Your task to perform on an android device: set the timer Image 0: 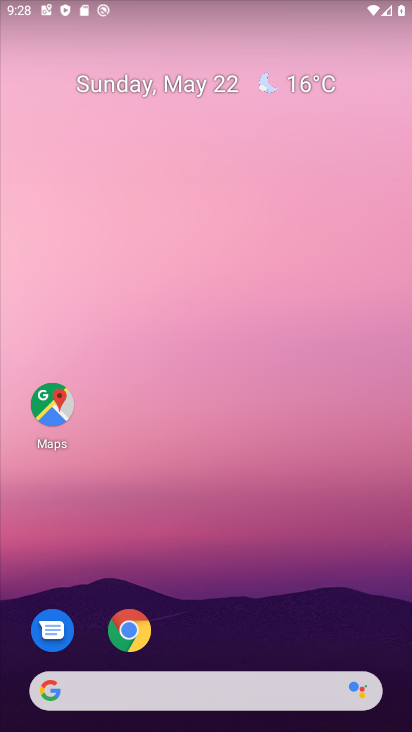
Step 0: drag from (388, 655) to (355, 38)
Your task to perform on an android device: set the timer Image 1: 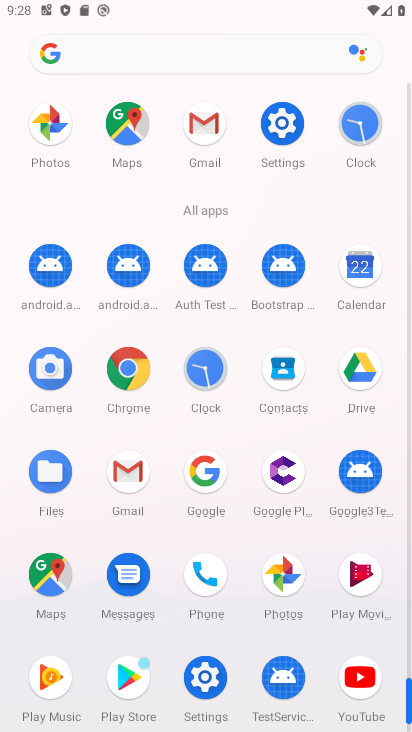
Step 1: click (203, 364)
Your task to perform on an android device: set the timer Image 2: 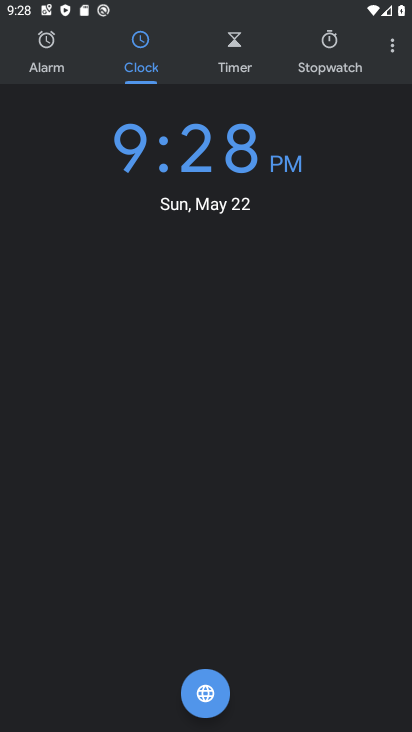
Step 2: click (237, 43)
Your task to perform on an android device: set the timer Image 3: 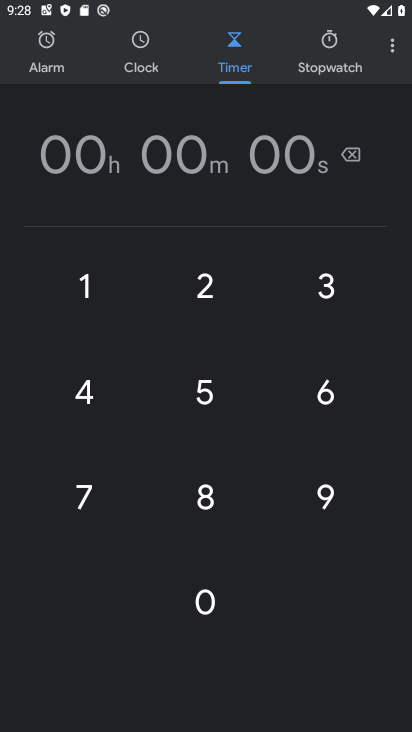
Step 3: click (83, 284)
Your task to perform on an android device: set the timer Image 4: 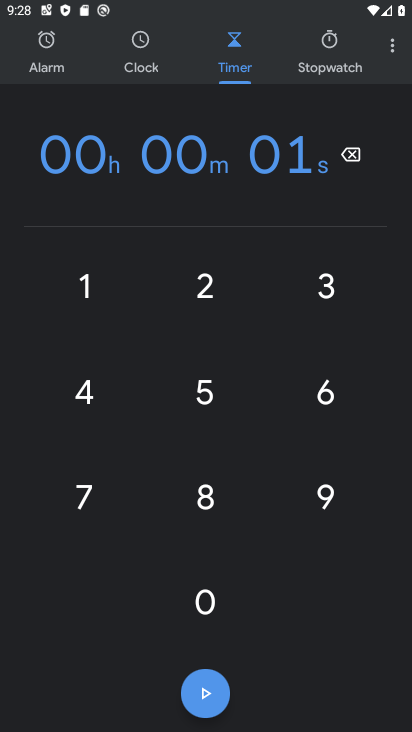
Step 4: click (330, 282)
Your task to perform on an android device: set the timer Image 5: 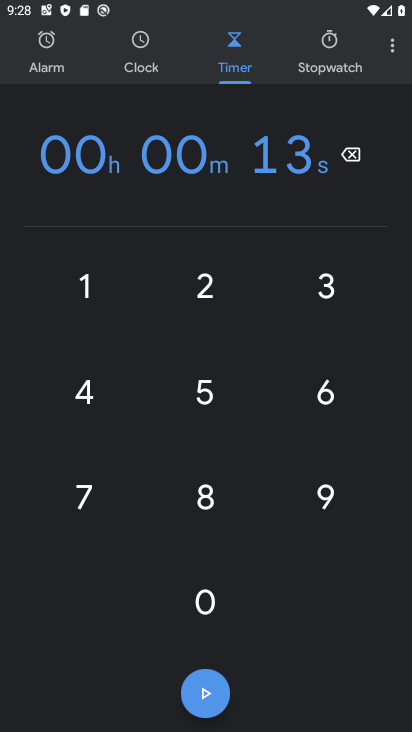
Step 5: click (203, 612)
Your task to perform on an android device: set the timer Image 6: 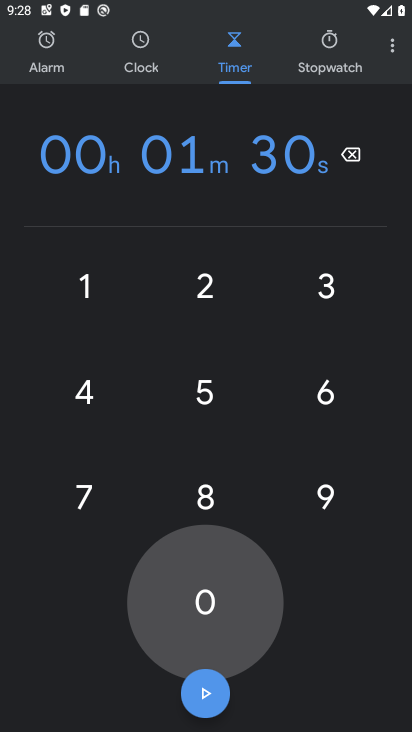
Step 6: click (203, 612)
Your task to perform on an android device: set the timer Image 7: 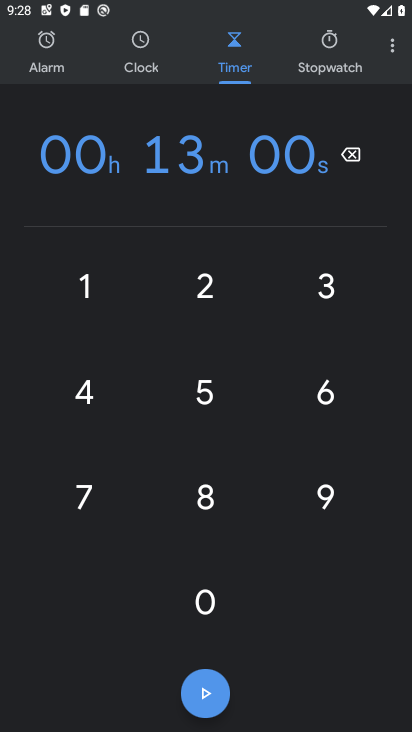
Step 7: click (203, 612)
Your task to perform on an android device: set the timer Image 8: 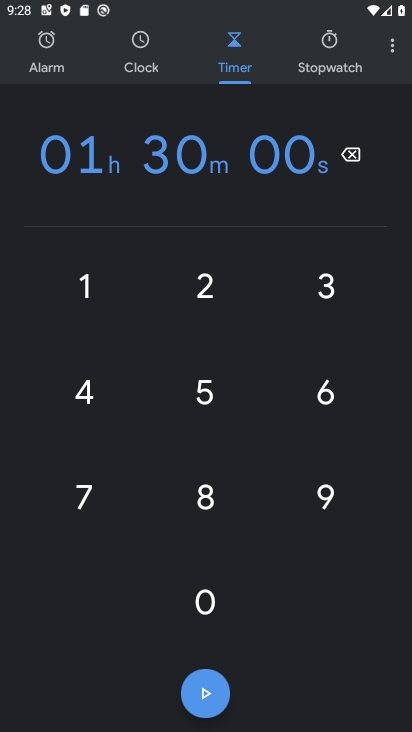
Step 8: task complete